Your task to perform on an android device: What's the weather? Image 0: 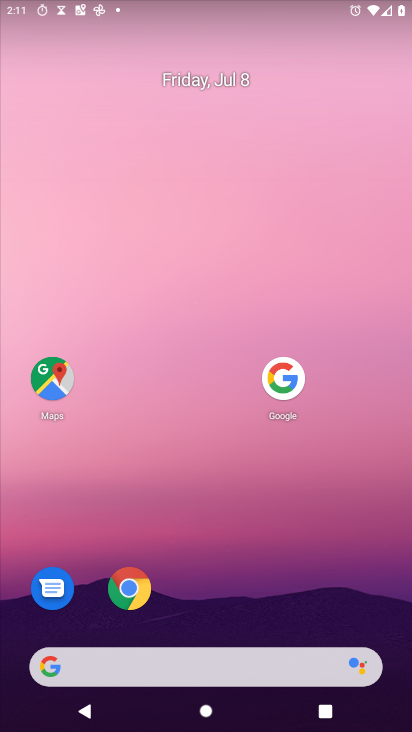
Step 0: click (203, 667)
Your task to perform on an android device: What's the weather? Image 1: 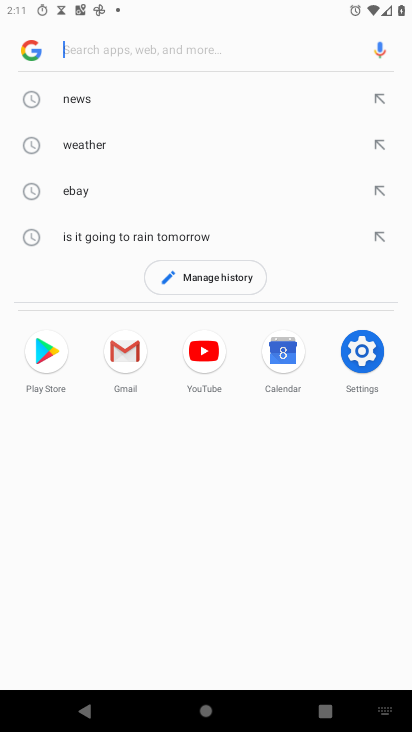
Step 1: click (97, 144)
Your task to perform on an android device: What's the weather? Image 2: 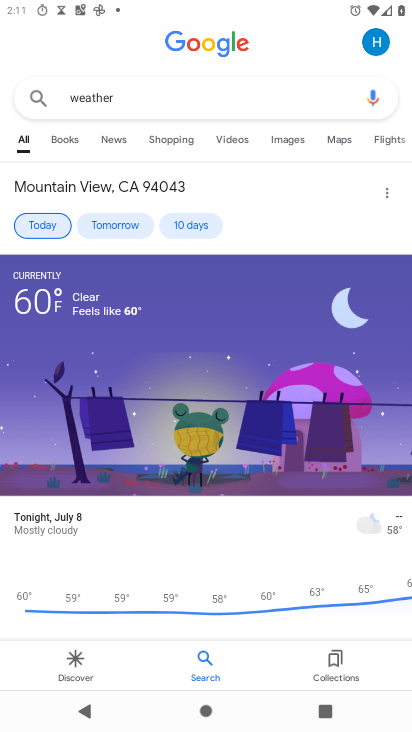
Step 2: task complete